Your task to perform on an android device: change the clock style Image 0: 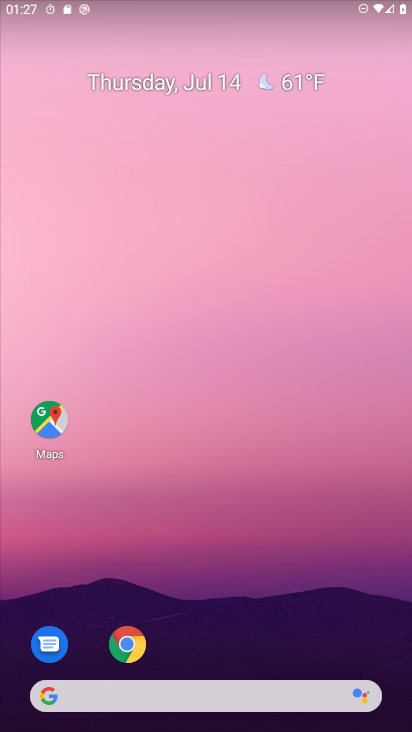
Step 0: drag from (356, 580) to (297, 107)
Your task to perform on an android device: change the clock style Image 1: 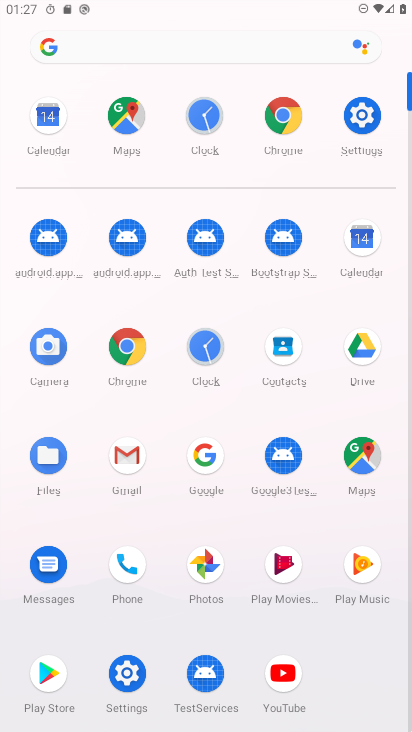
Step 1: click (217, 340)
Your task to perform on an android device: change the clock style Image 2: 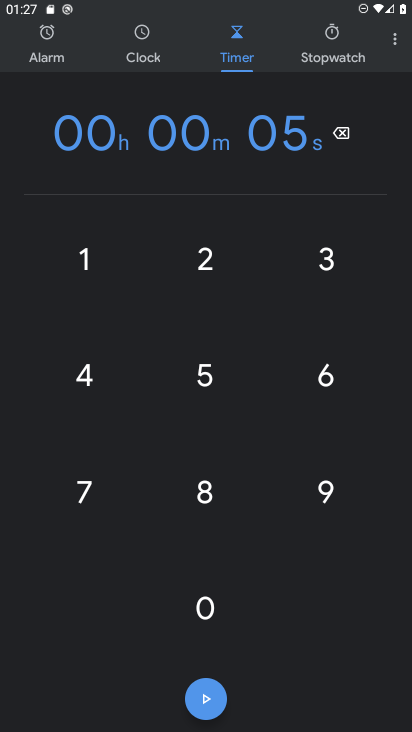
Step 2: drag from (400, 42) to (317, 82)
Your task to perform on an android device: change the clock style Image 3: 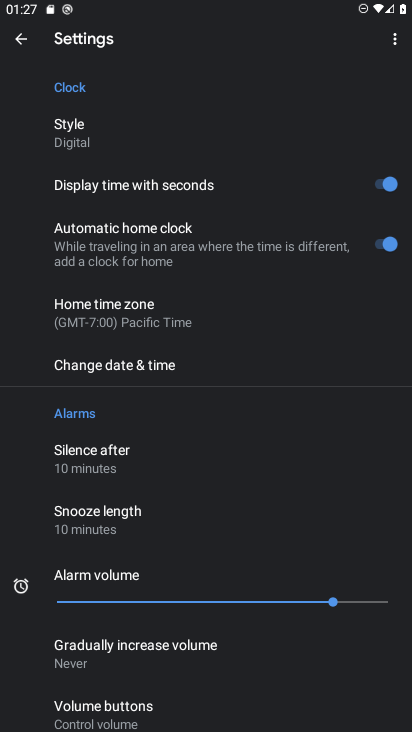
Step 3: click (90, 132)
Your task to perform on an android device: change the clock style Image 4: 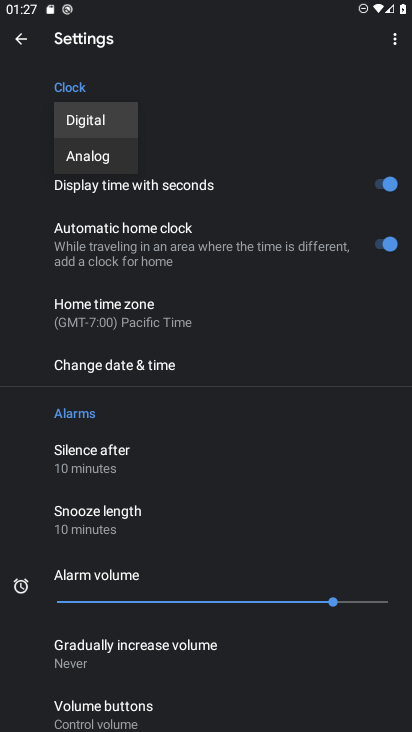
Step 4: click (98, 154)
Your task to perform on an android device: change the clock style Image 5: 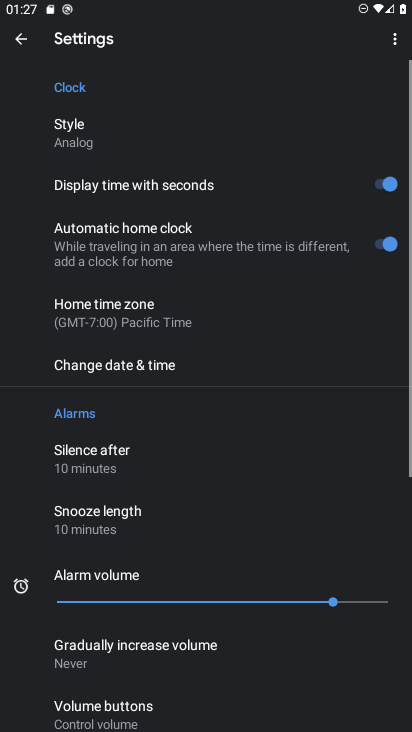
Step 5: task complete